Your task to perform on an android device: change the clock display to digital Image 0: 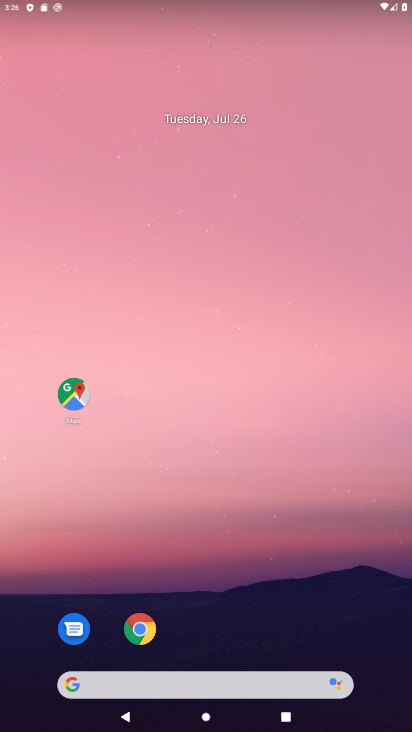
Step 0: drag from (292, 642) to (172, 119)
Your task to perform on an android device: change the clock display to digital Image 1: 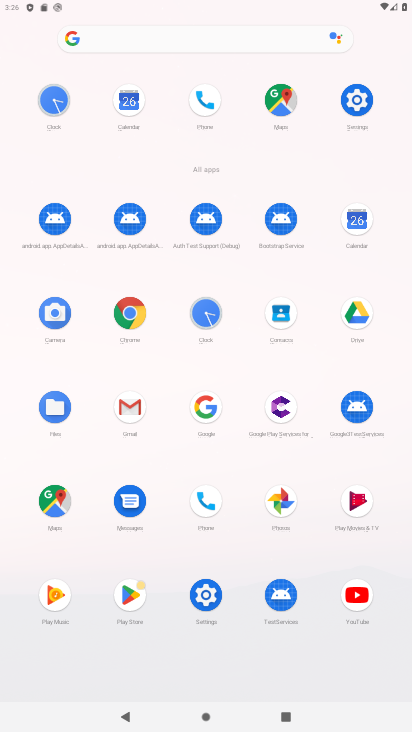
Step 1: click (198, 318)
Your task to perform on an android device: change the clock display to digital Image 2: 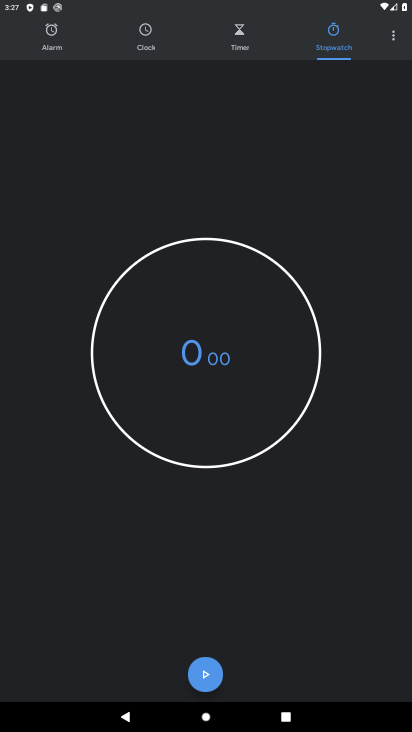
Step 2: click (396, 35)
Your task to perform on an android device: change the clock display to digital Image 3: 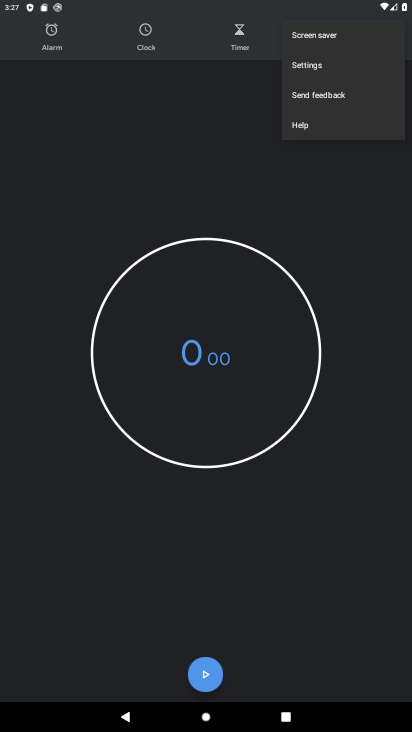
Step 3: click (309, 71)
Your task to perform on an android device: change the clock display to digital Image 4: 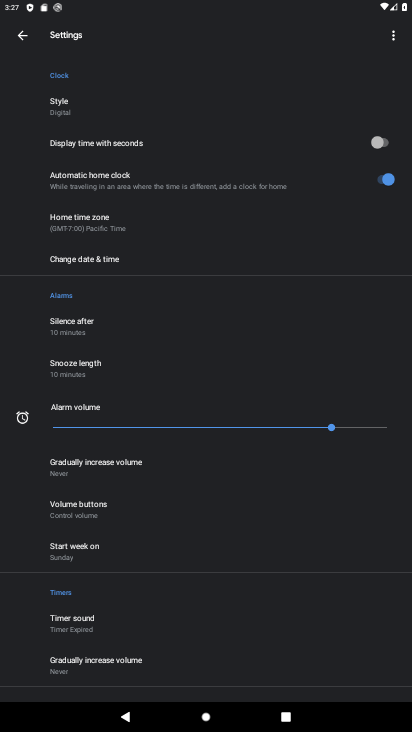
Step 4: click (80, 108)
Your task to perform on an android device: change the clock display to digital Image 5: 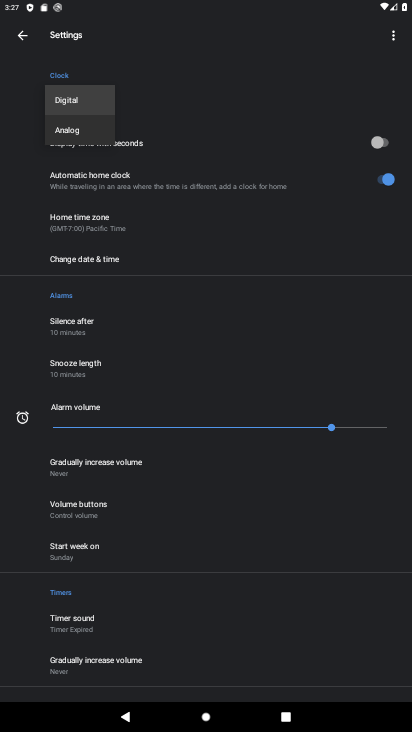
Step 5: task complete